Your task to perform on an android device: open device folders in google photos Image 0: 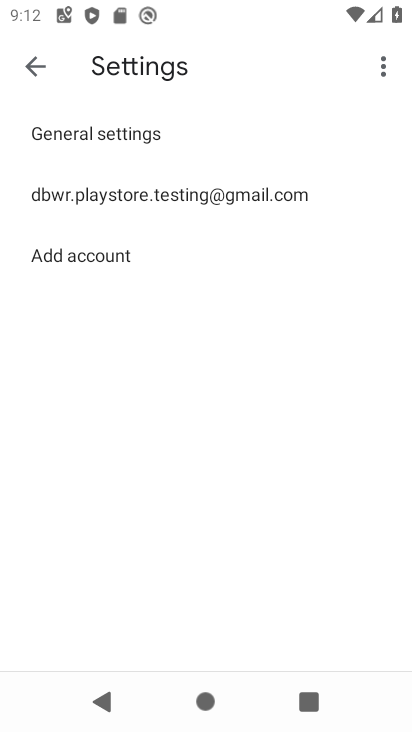
Step 0: press home button
Your task to perform on an android device: open device folders in google photos Image 1: 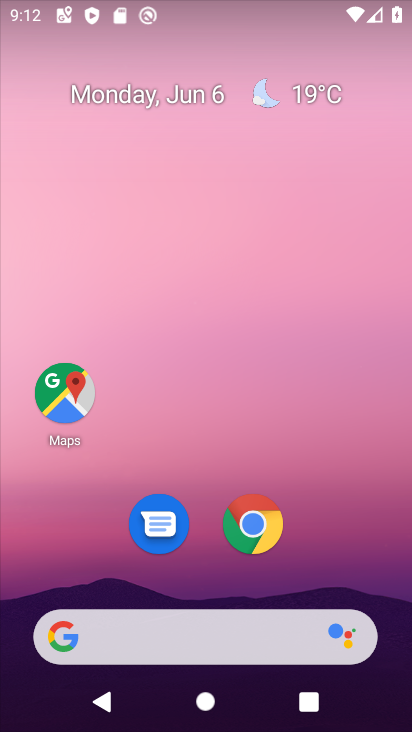
Step 1: drag from (314, 542) to (270, 27)
Your task to perform on an android device: open device folders in google photos Image 2: 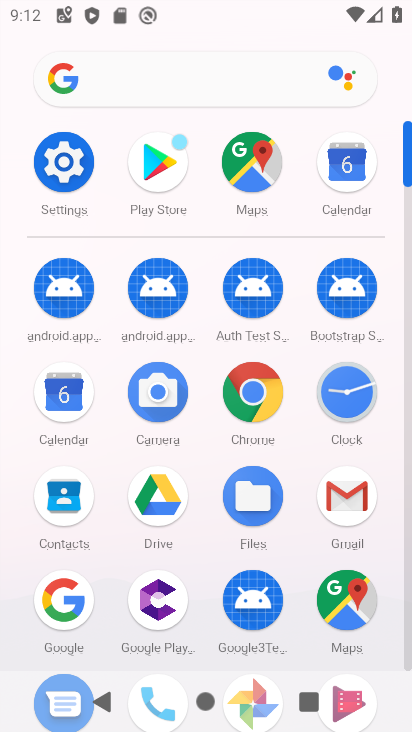
Step 2: drag from (294, 434) to (278, 177)
Your task to perform on an android device: open device folders in google photos Image 3: 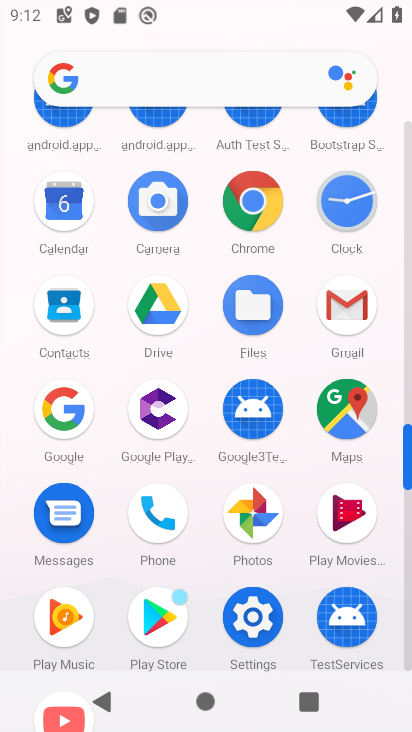
Step 3: click (246, 509)
Your task to perform on an android device: open device folders in google photos Image 4: 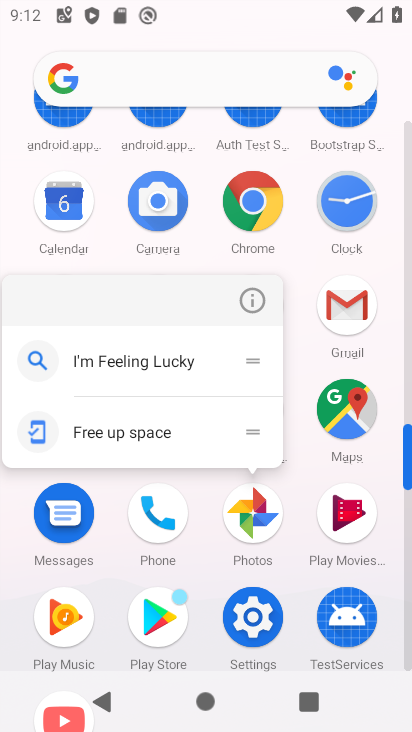
Step 4: click (246, 509)
Your task to perform on an android device: open device folders in google photos Image 5: 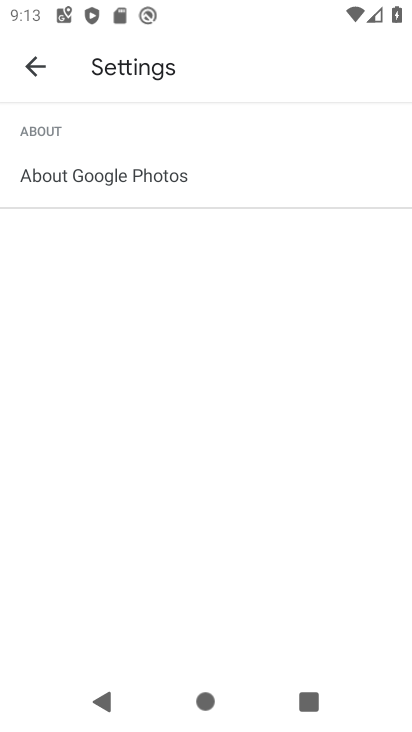
Step 5: click (33, 65)
Your task to perform on an android device: open device folders in google photos Image 6: 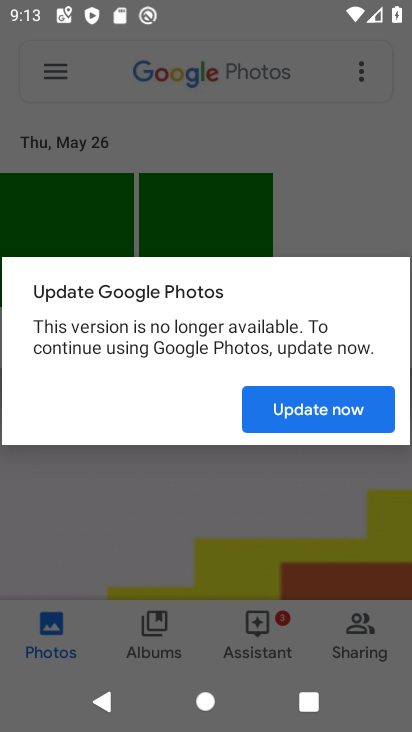
Step 6: click (58, 81)
Your task to perform on an android device: open device folders in google photos Image 7: 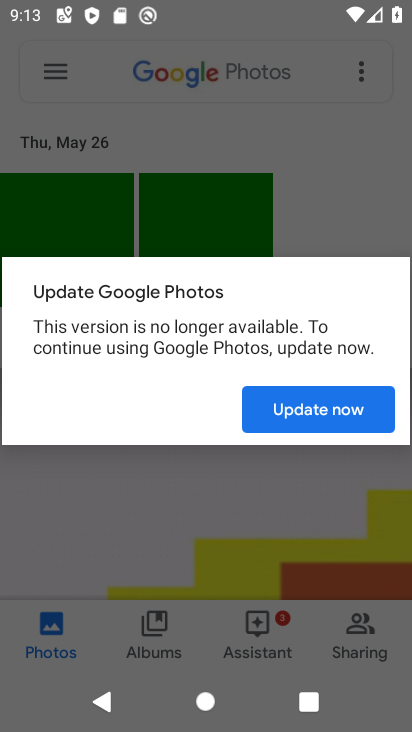
Step 7: click (271, 411)
Your task to perform on an android device: open device folders in google photos Image 8: 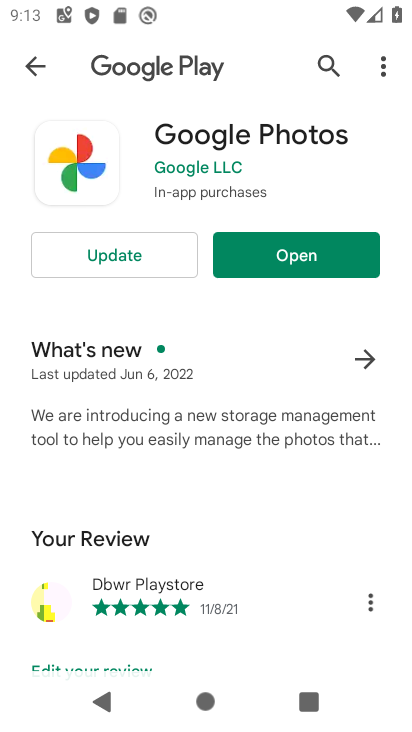
Step 8: click (297, 253)
Your task to perform on an android device: open device folders in google photos Image 9: 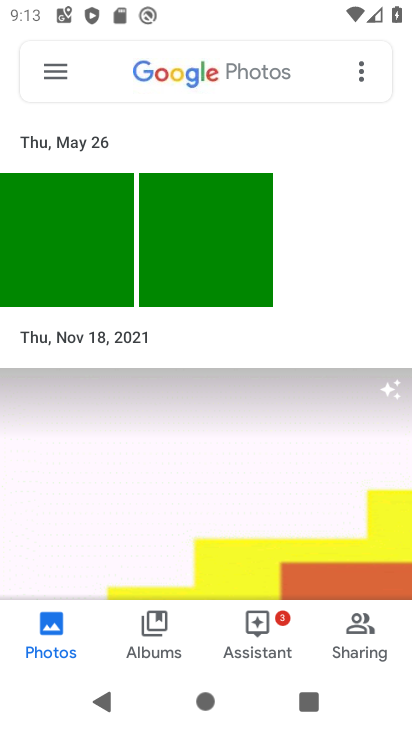
Step 9: click (59, 62)
Your task to perform on an android device: open device folders in google photos Image 10: 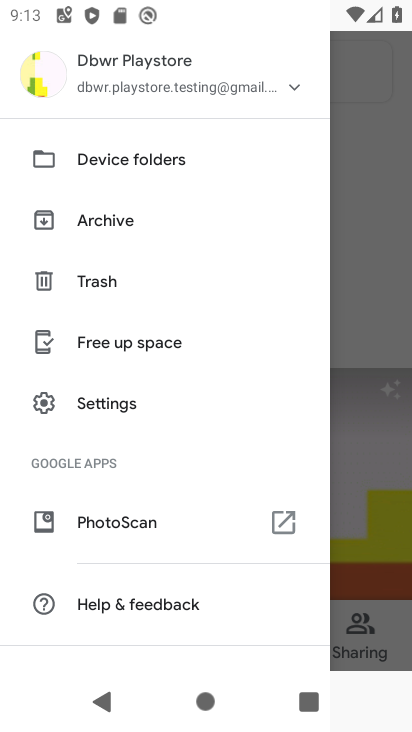
Step 10: click (113, 150)
Your task to perform on an android device: open device folders in google photos Image 11: 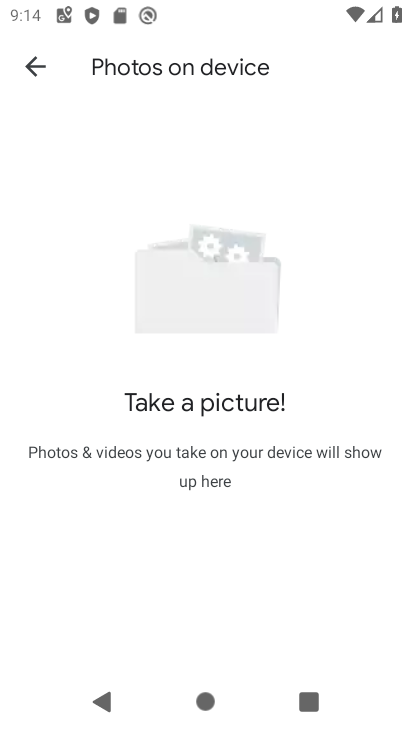
Step 11: task complete